Your task to perform on an android device: find which apps use the phone's location Image 0: 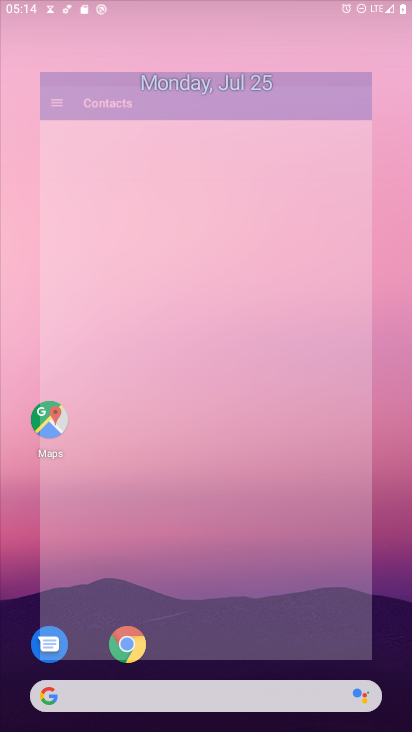
Step 0: press home button
Your task to perform on an android device: find which apps use the phone's location Image 1: 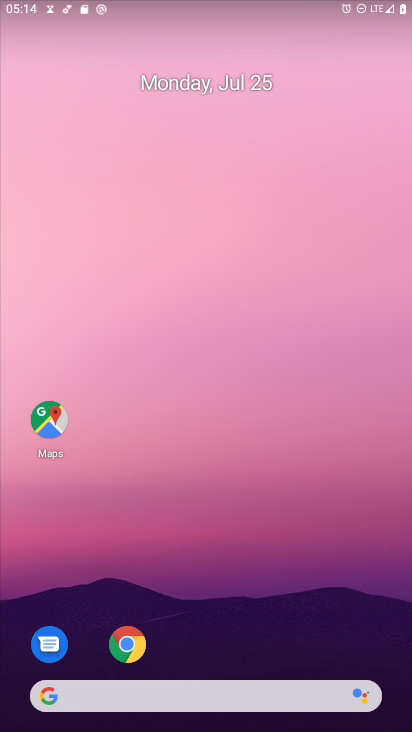
Step 1: drag from (261, 635) to (172, 100)
Your task to perform on an android device: find which apps use the phone's location Image 2: 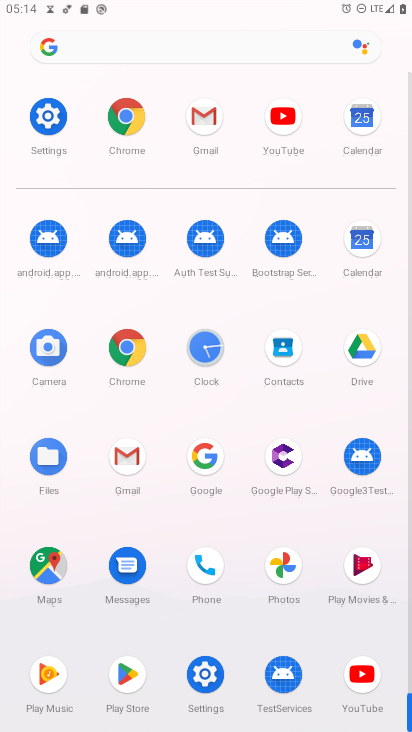
Step 2: click (54, 115)
Your task to perform on an android device: find which apps use the phone's location Image 3: 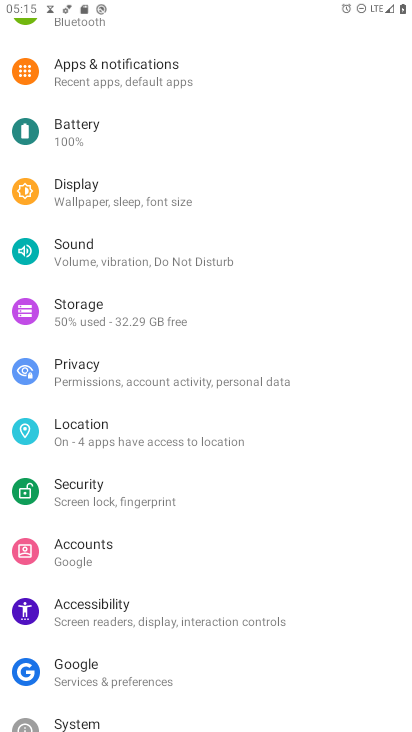
Step 3: drag from (117, 104) to (157, 234)
Your task to perform on an android device: find which apps use the phone's location Image 4: 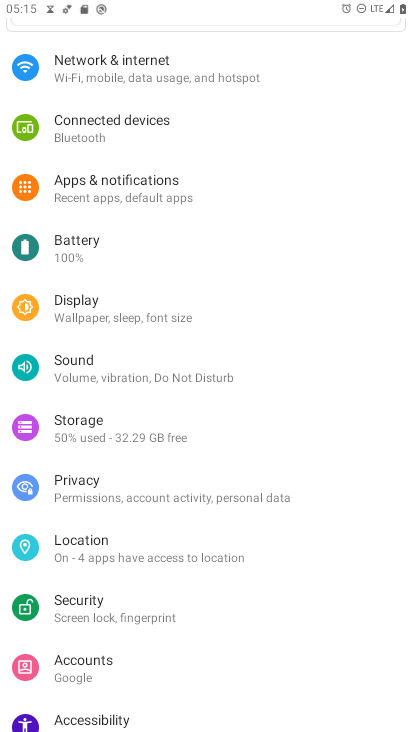
Step 4: click (83, 549)
Your task to perform on an android device: find which apps use the phone's location Image 5: 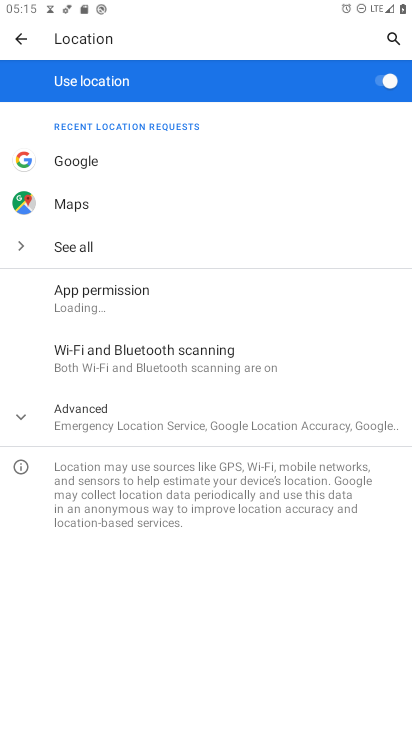
Step 5: click (130, 296)
Your task to perform on an android device: find which apps use the phone's location Image 6: 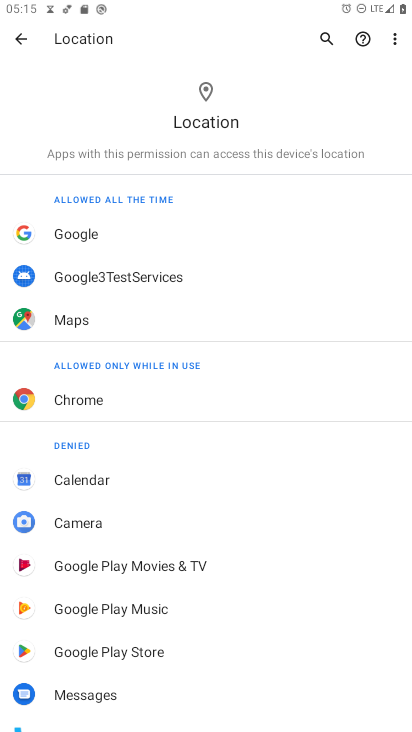
Step 6: task complete